Your task to perform on an android device: set an alarm Image 0: 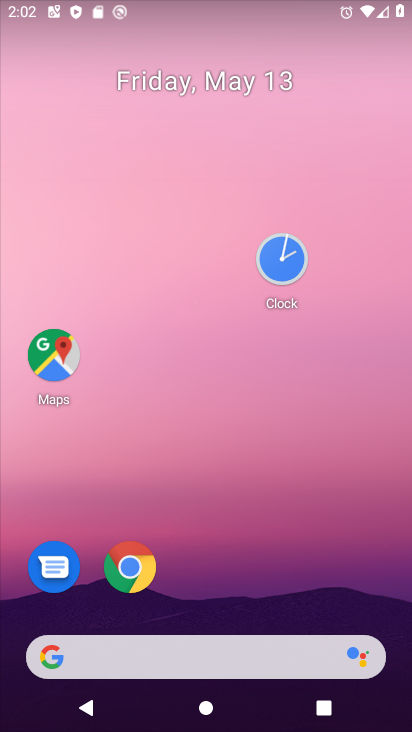
Step 0: click (270, 265)
Your task to perform on an android device: set an alarm Image 1: 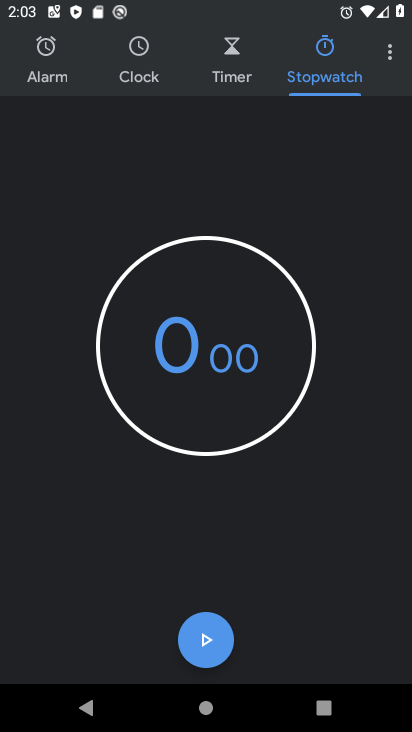
Step 1: click (54, 68)
Your task to perform on an android device: set an alarm Image 2: 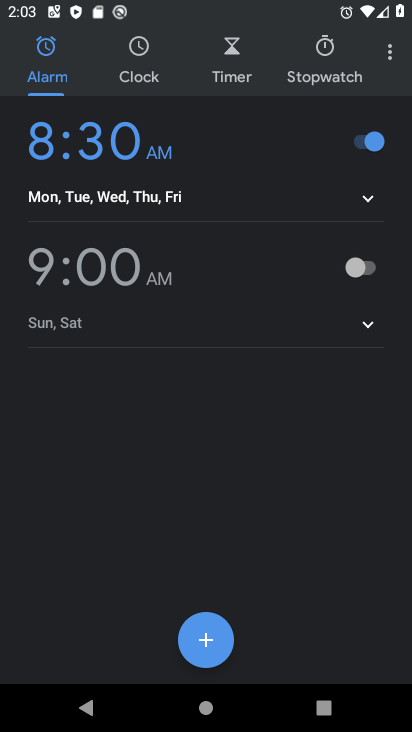
Step 2: task complete